Your task to perform on an android device: Set the phone to "Do not disturb". Image 0: 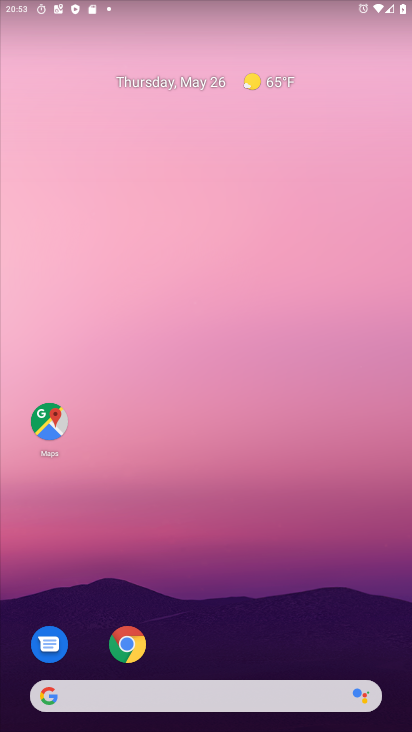
Step 0: drag from (193, 628) to (194, 143)
Your task to perform on an android device: Set the phone to "Do not disturb". Image 1: 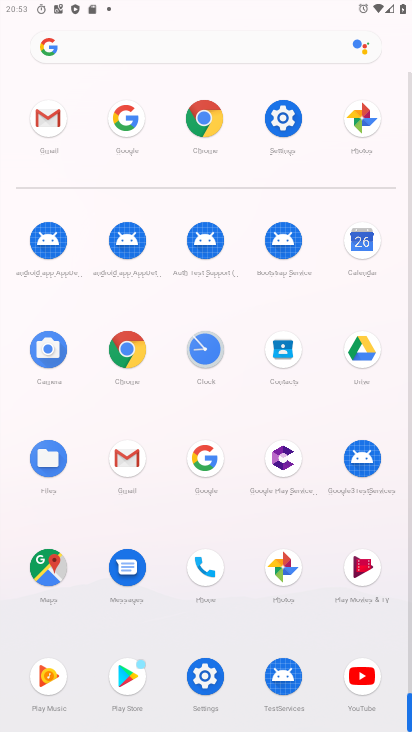
Step 1: click (288, 101)
Your task to perform on an android device: Set the phone to "Do not disturb". Image 2: 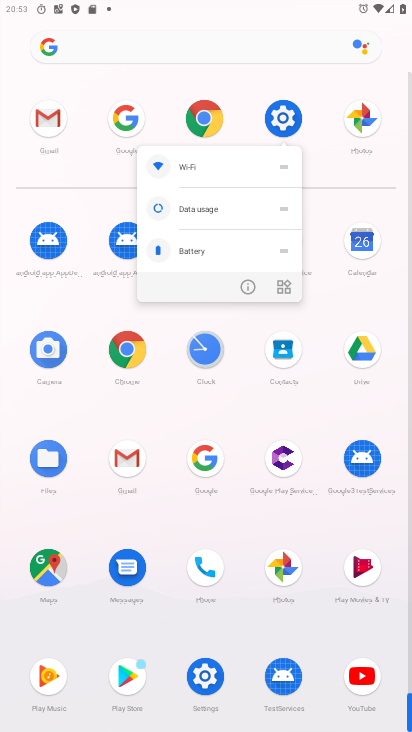
Step 2: click (249, 292)
Your task to perform on an android device: Set the phone to "Do not disturb". Image 3: 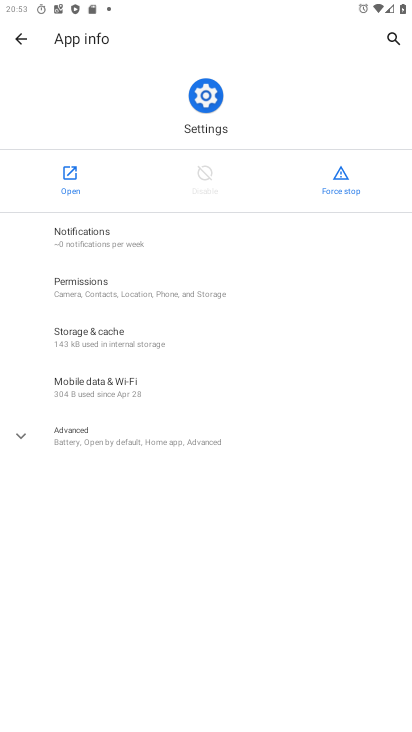
Step 3: click (66, 172)
Your task to perform on an android device: Set the phone to "Do not disturb". Image 4: 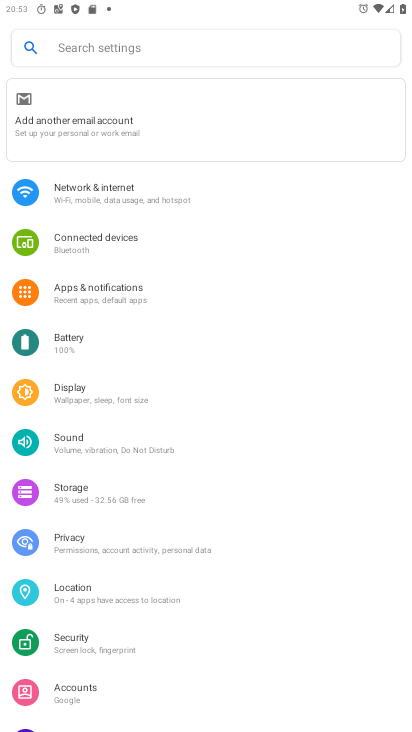
Step 4: click (103, 290)
Your task to perform on an android device: Set the phone to "Do not disturb". Image 5: 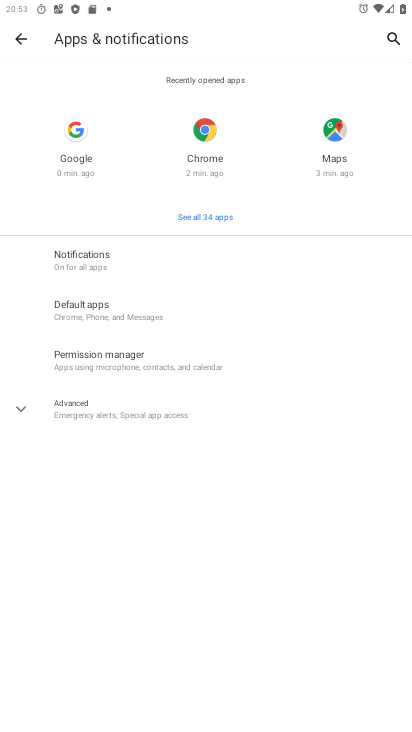
Step 5: click (173, 263)
Your task to perform on an android device: Set the phone to "Do not disturb". Image 6: 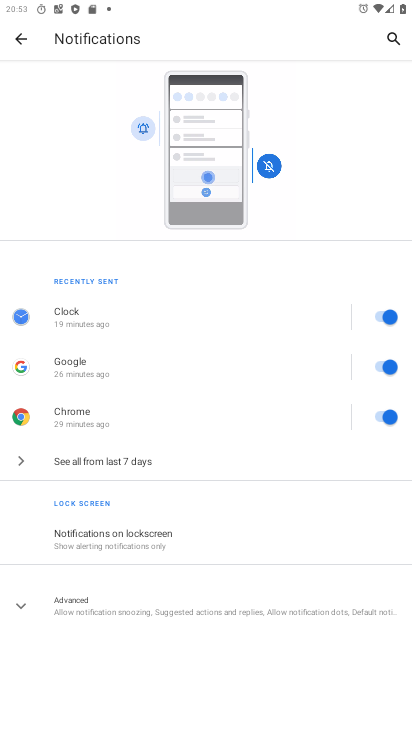
Step 6: drag from (231, 566) to (234, 95)
Your task to perform on an android device: Set the phone to "Do not disturb". Image 7: 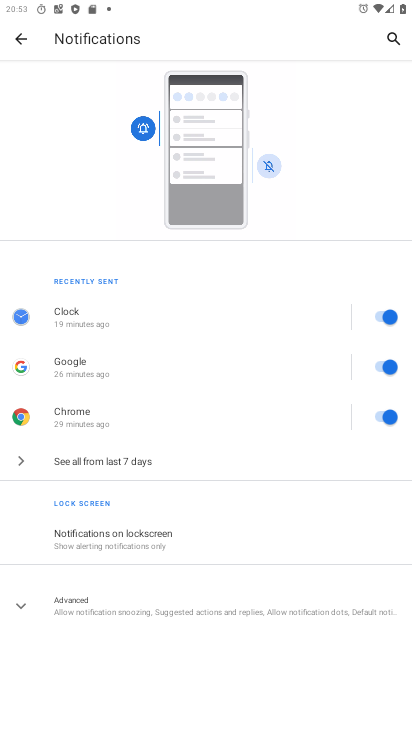
Step 7: click (193, 602)
Your task to perform on an android device: Set the phone to "Do not disturb". Image 8: 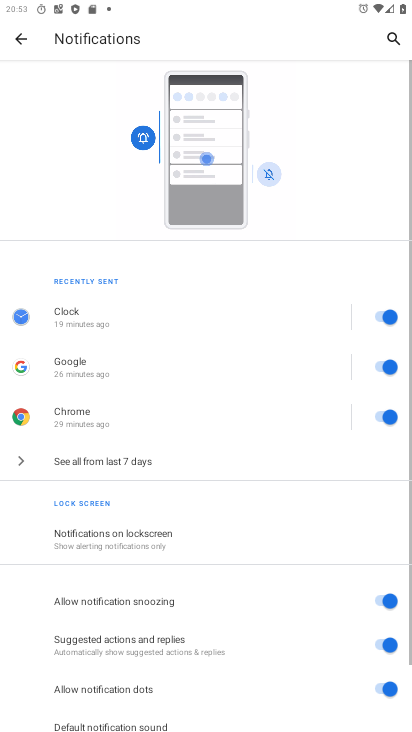
Step 8: drag from (231, 674) to (246, 395)
Your task to perform on an android device: Set the phone to "Do not disturb". Image 9: 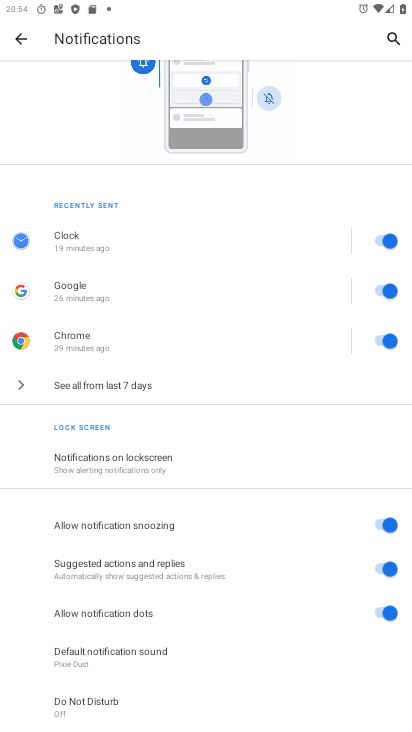
Step 9: click (118, 702)
Your task to perform on an android device: Set the phone to "Do not disturb". Image 10: 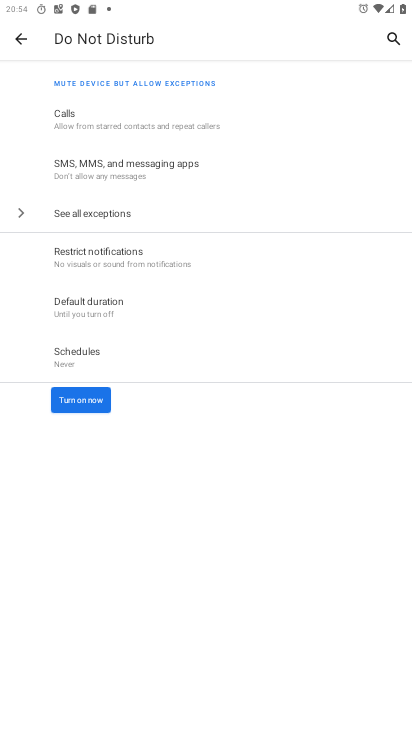
Step 10: drag from (154, 691) to (254, 171)
Your task to perform on an android device: Set the phone to "Do not disturb". Image 11: 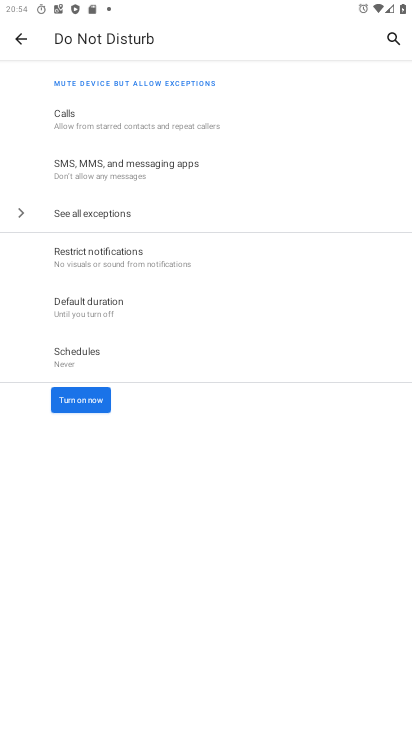
Step 11: click (80, 400)
Your task to perform on an android device: Set the phone to "Do not disturb". Image 12: 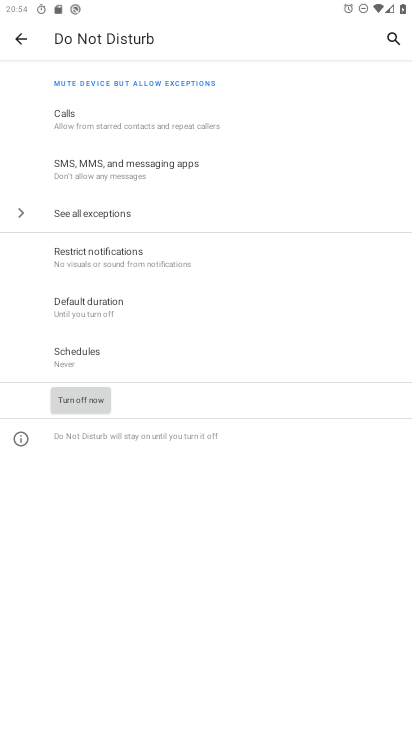
Step 12: task complete